Your task to perform on an android device: turn on location history Image 0: 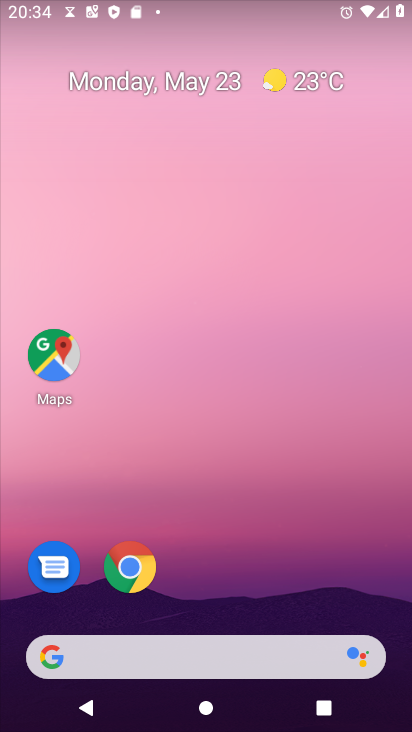
Step 0: drag from (224, 569) to (268, 282)
Your task to perform on an android device: turn on location history Image 1: 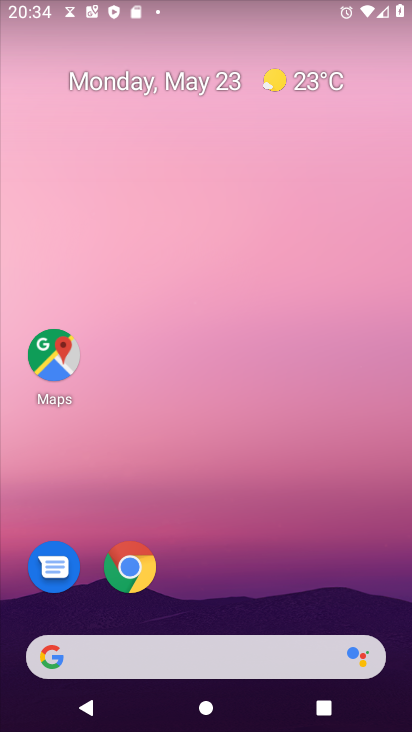
Step 1: drag from (217, 597) to (264, 293)
Your task to perform on an android device: turn on location history Image 2: 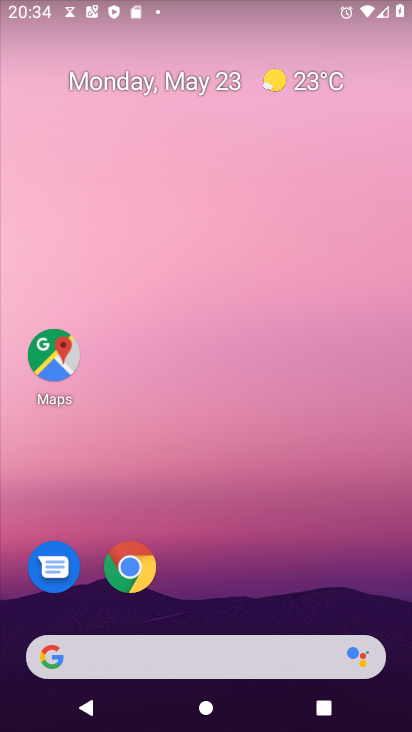
Step 2: drag from (262, 594) to (348, 204)
Your task to perform on an android device: turn on location history Image 3: 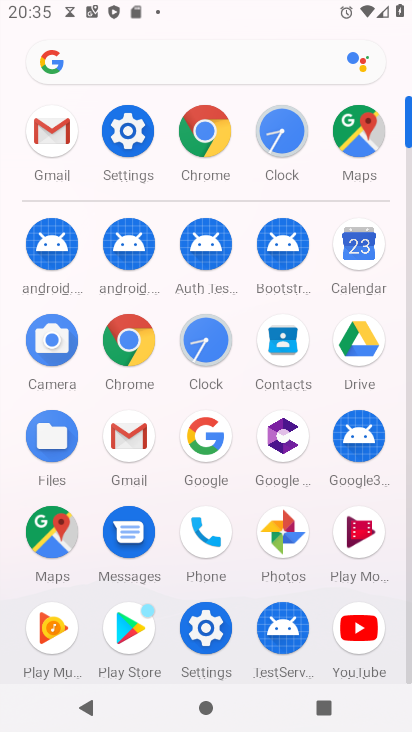
Step 3: click (42, 539)
Your task to perform on an android device: turn on location history Image 4: 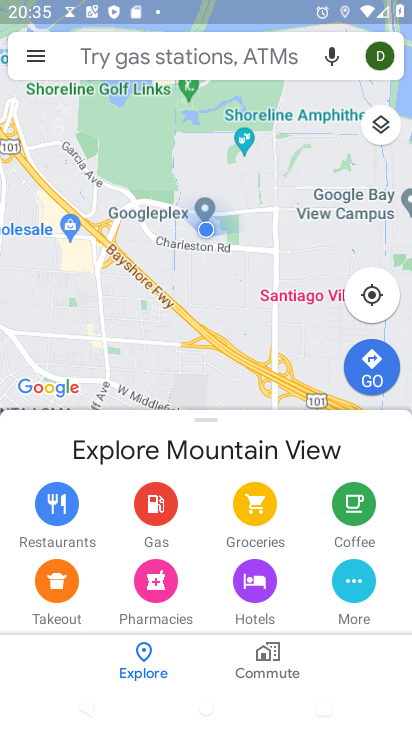
Step 4: click (39, 46)
Your task to perform on an android device: turn on location history Image 5: 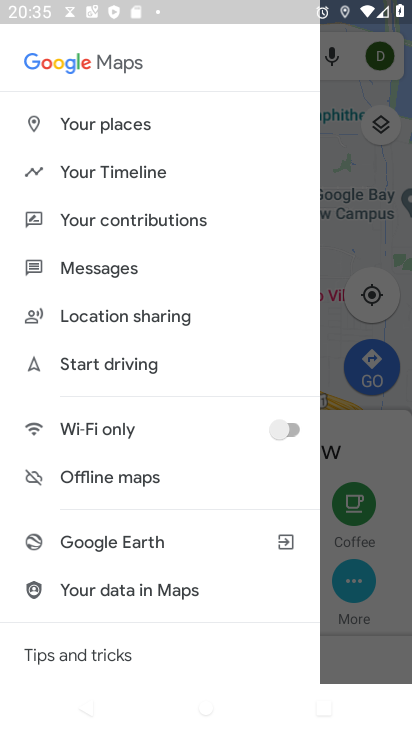
Step 5: click (122, 171)
Your task to perform on an android device: turn on location history Image 6: 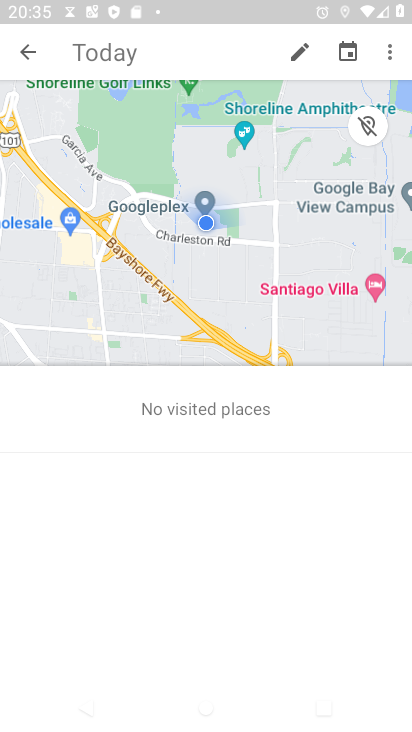
Step 6: click (395, 46)
Your task to perform on an android device: turn on location history Image 7: 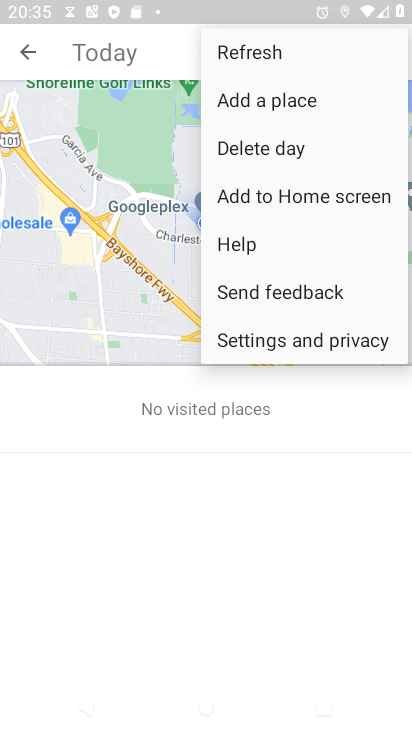
Step 7: click (266, 334)
Your task to perform on an android device: turn on location history Image 8: 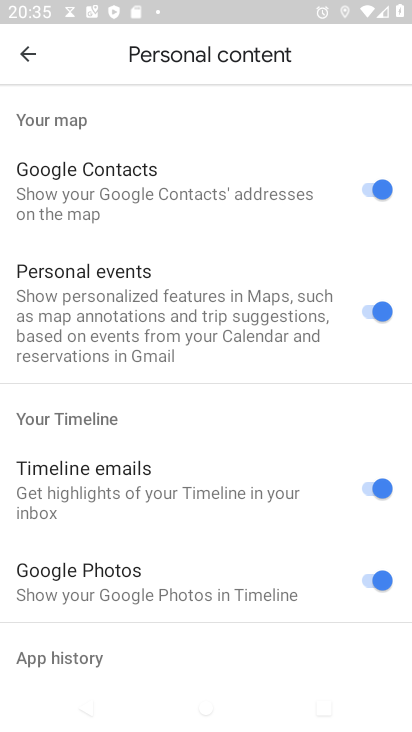
Step 8: drag from (183, 545) to (267, 171)
Your task to perform on an android device: turn on location history Image 9: 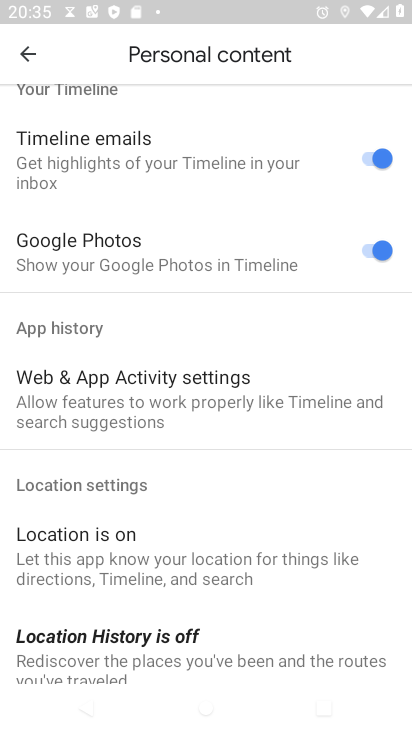
Step 9: drag from (159, 628) to (235, 399)
Your task to perform on an android device: turn on location history Image 10: 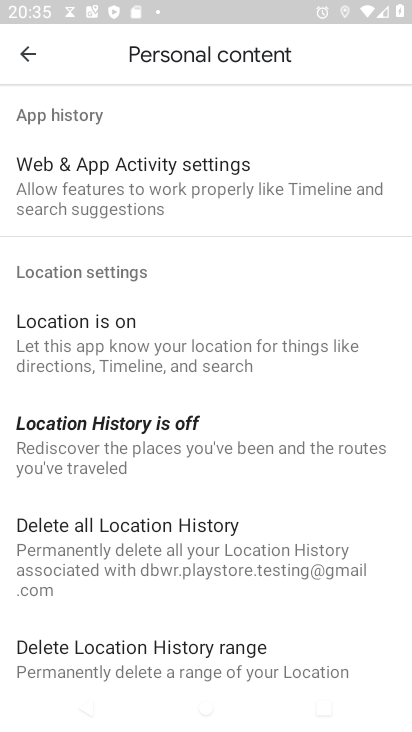
Step 10: click (146, 425)
Your task to perform on an android device: turn on location history Image 11: 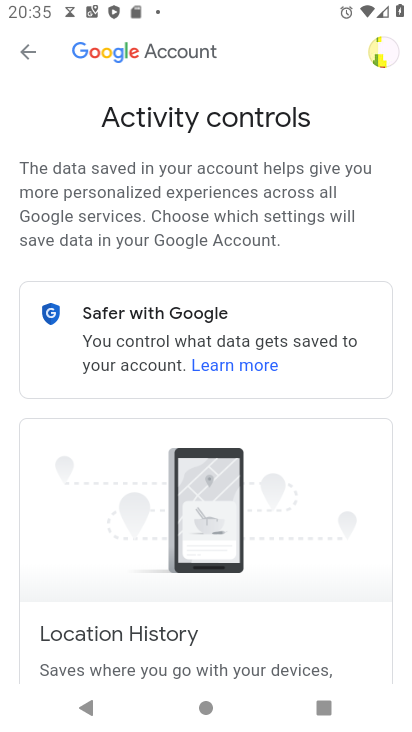
Step 11: drag from (256, 609) to (306, 132)
Your task to perform on an android device: turn on location history Image 12: 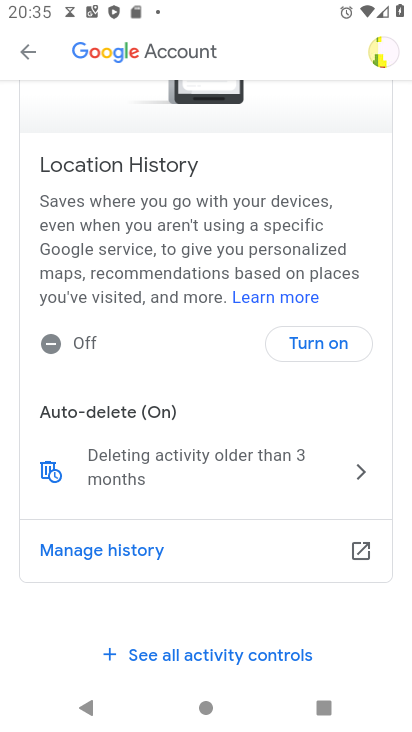
Step 12: click (299, 342)
Your task to perform on an android device: turn on location history Image 13: 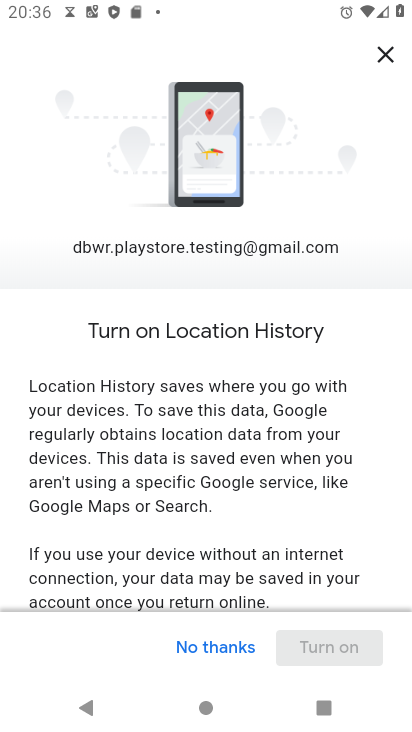
Step 13: task complete